Your task to perform on an android device: Open Amazon Image 0: 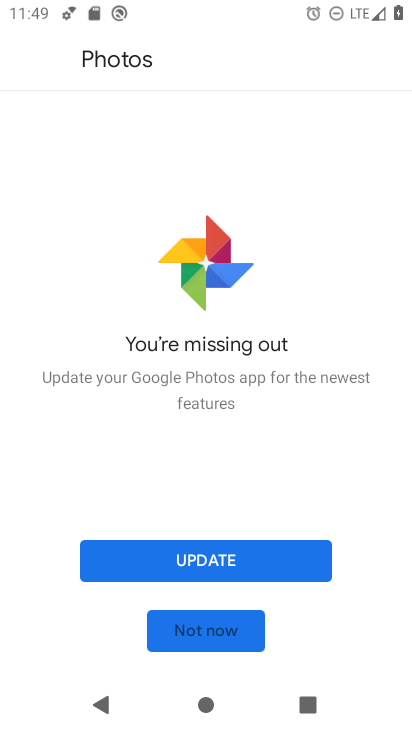
Step 0: press home button
Your task to perform on an android device: Open Amazon Image 1: 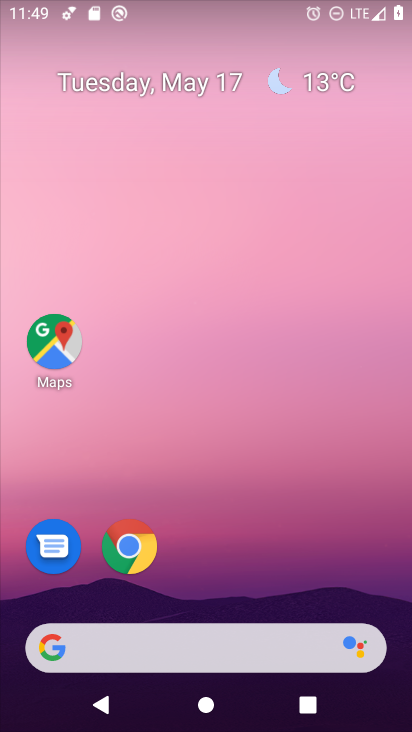
Step 1: click (128, 550)
Your task to perform on an android device: Open Amazon Image 2: 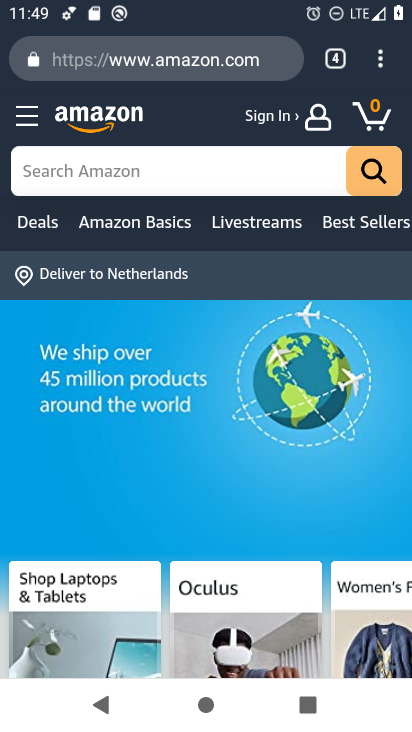
Step 2: task complete